Your task to perform on an android device: Turn off the flashlight Image 0: 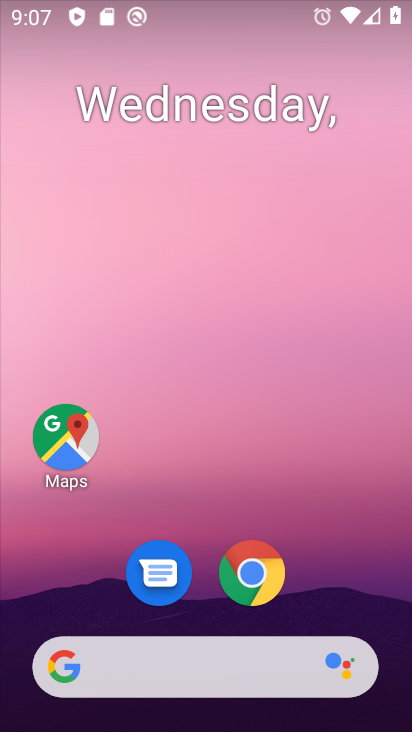
Step 0: drag from (263, 11) to (231, 631)
Your task to perform on an android device: Turn off the flashlight Image 1: 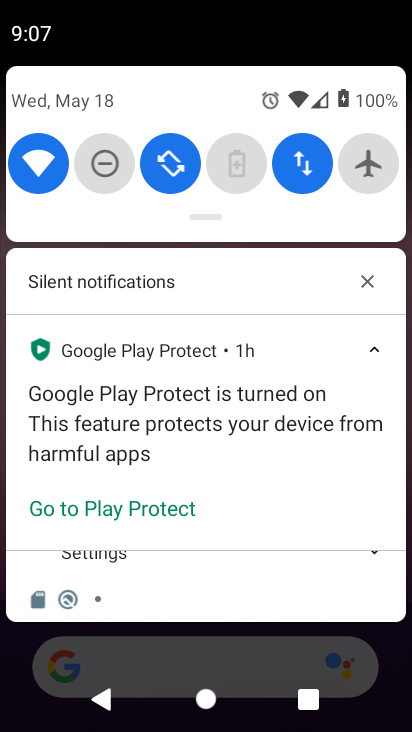
Step 1: task complete